Your task to perform on an android device: set default search engine in the chrome app Image 0: 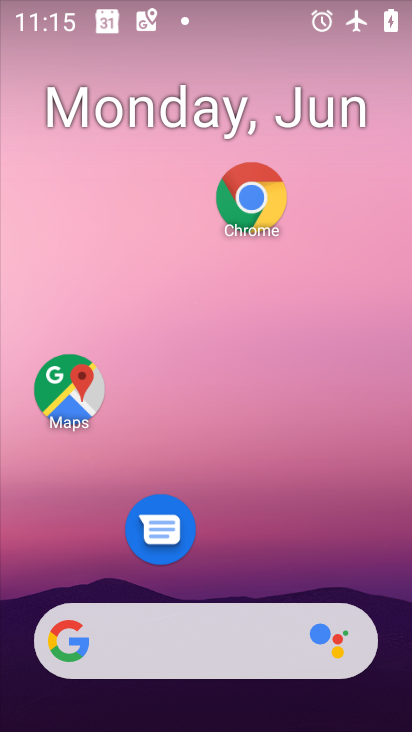
Step 0: click (234, 562)
Your task to perform on an android device: set default search engine in the chrome app Image 1: 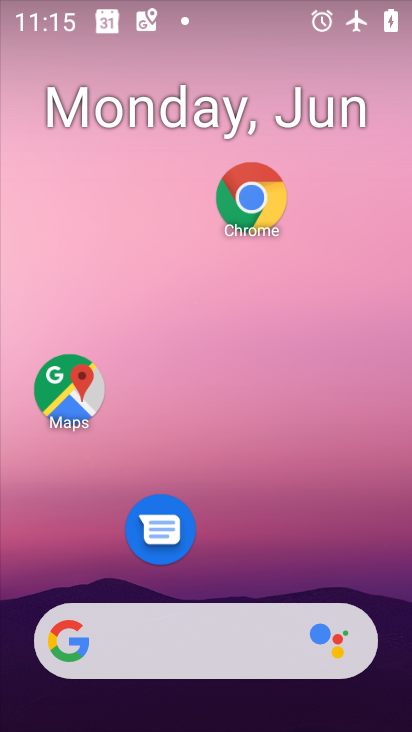
Step 1: click (239, 221)
Your task to perform on an android device: set default search engine in the chrome app Image 2: 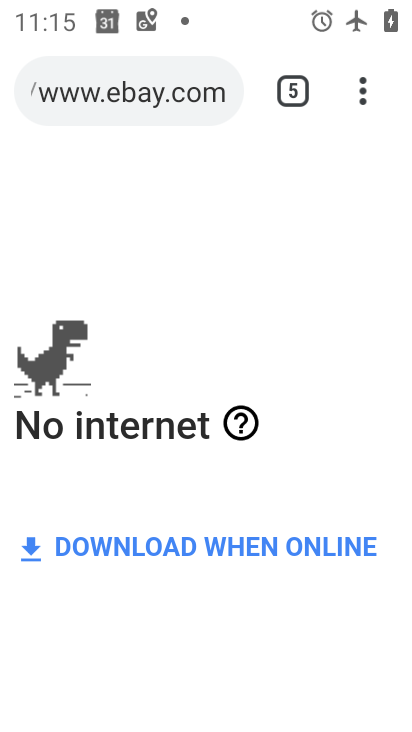
Step 2: click (357, 86)
Your task to perform on an android device: set default search engine in the chrome app Image 3: 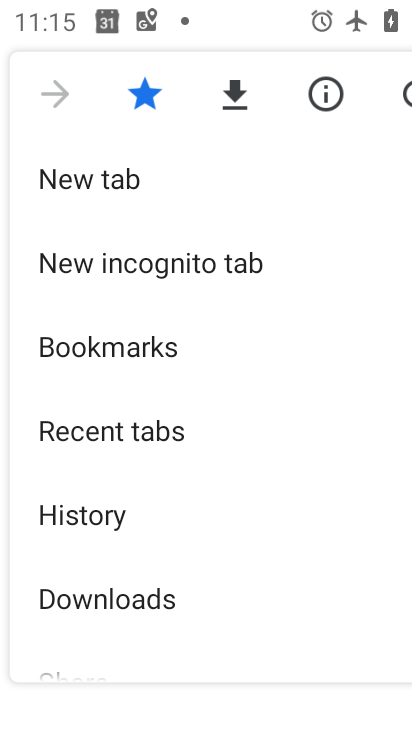
Step 3: drag from (132, 547) to (167, 337)
Your task to perform on an android device: set default search engine in the chrome app Image 4: 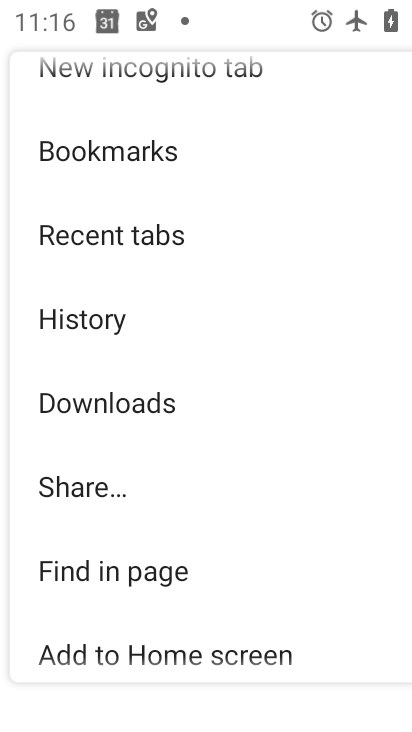
Step 4: drag from (193, 520) to (212, 300)
Your task to perform on an android device: set default search engine in the chrome app Image 5: 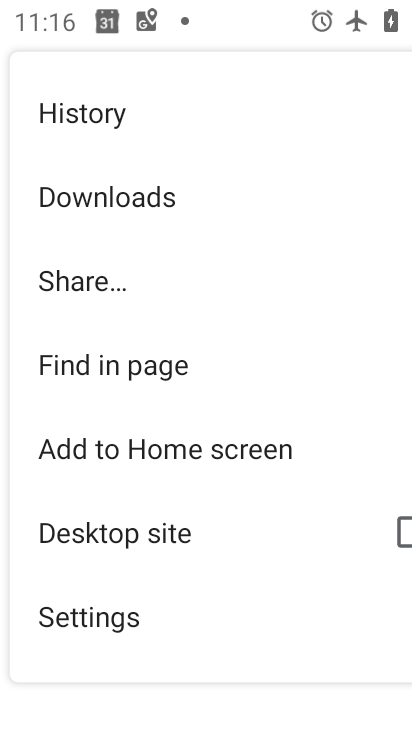
Step 5: click (115, 624)
Your task to perform on an android device: set default search engine in the chrome app Image 6: 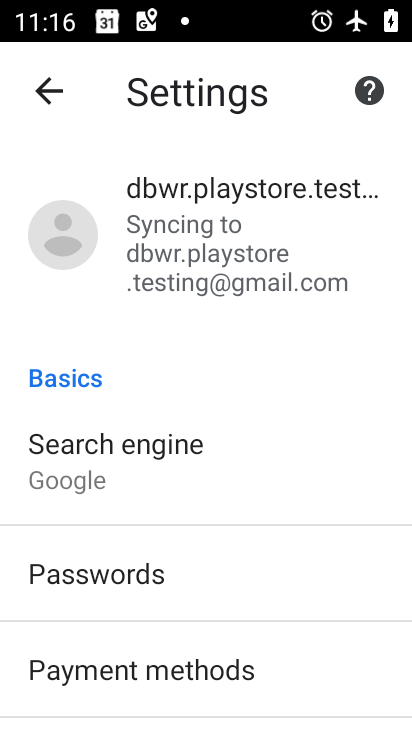
Step 6: click (176, 462)
Your task to perform on an android device: set default search engine in the chrome app Image 7: 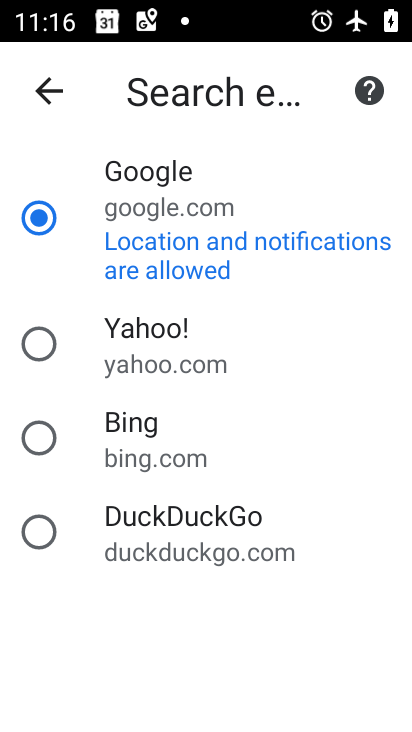
Step 7: click (84, 347)
Your task to perform on an android device: set default search engine in the chrome app Image 8: 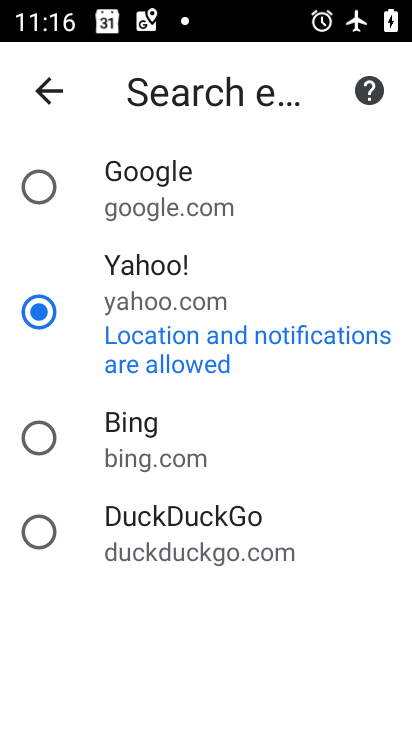
Step 8: task complete